Your task to perform on an android device: toggle show notifications on the lock screen Image 0: 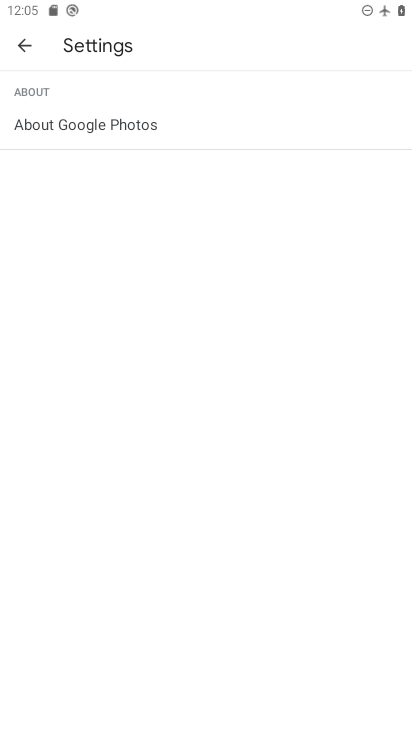
Step 0: press home button
Your task to perform on an android device: toggle show notifications on the lock screen Image 1: 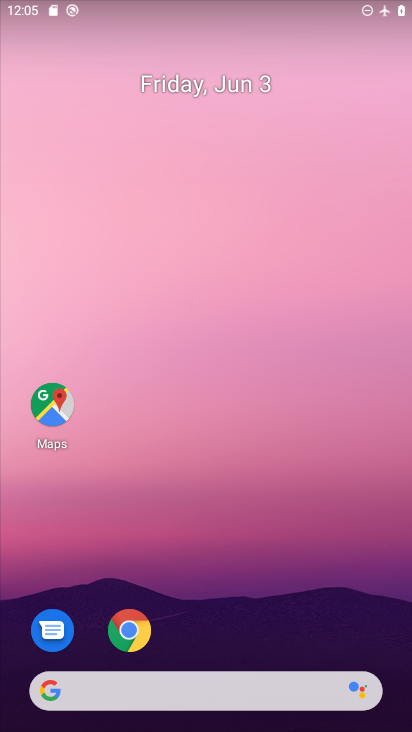
Step 1: drag from (244, 626) to (209, 262)
Your task to perform on an android device: toggle show notifications on the lock screen Image 2: 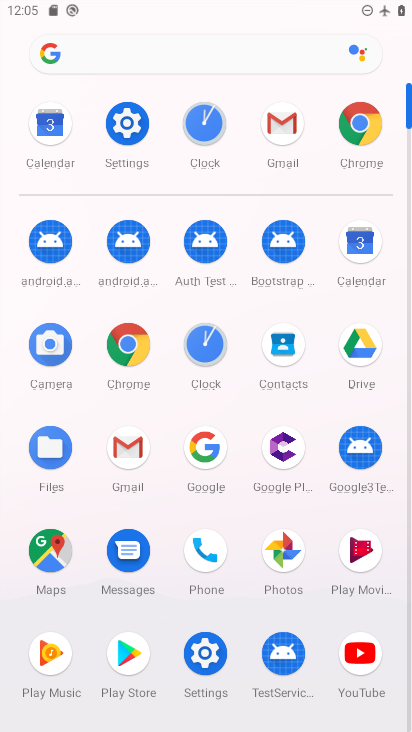
Step 2: click (123, 134)
Your task to perform on an android device: toggle show notifications on the lock screen Image 3: 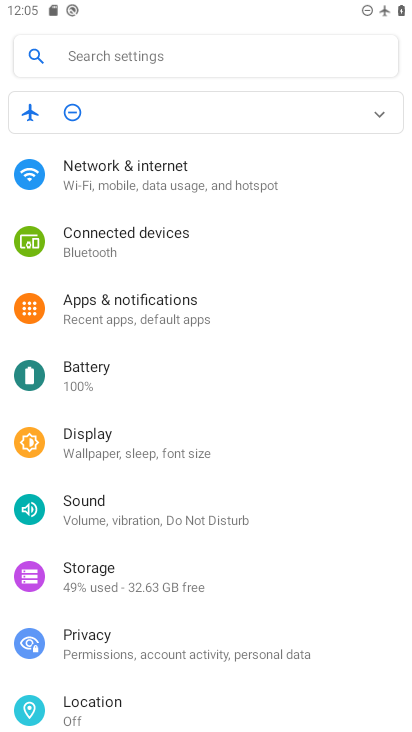
Step 3: click (178, 321)
Your task to perform on an android device: toggle show notifications on the lock screen Image 4: 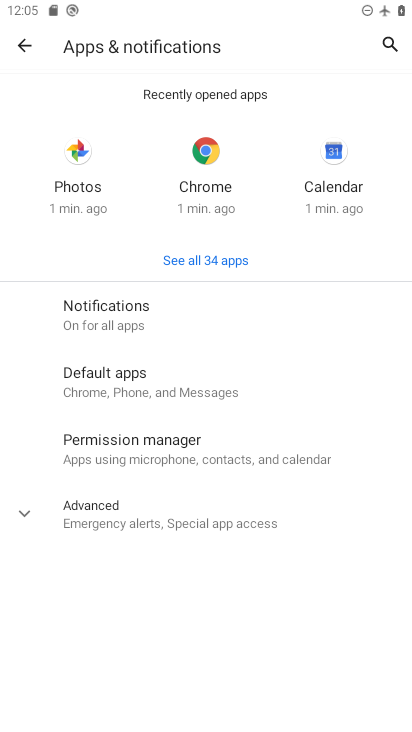
Step 4: click (183, 314)
Your task to perform on an android device: toggle show notifications on the lock screen Image 5: 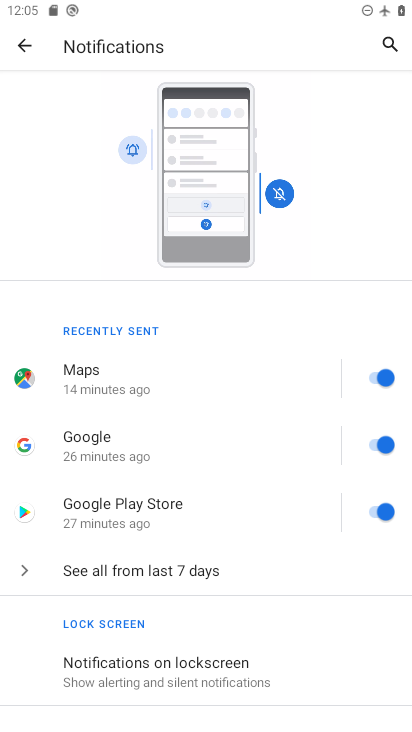
Step 5: drag from (261, 634) to (200, 406)
Your task to perform on an android device: toggle show notifications on the lock screen Image 6: 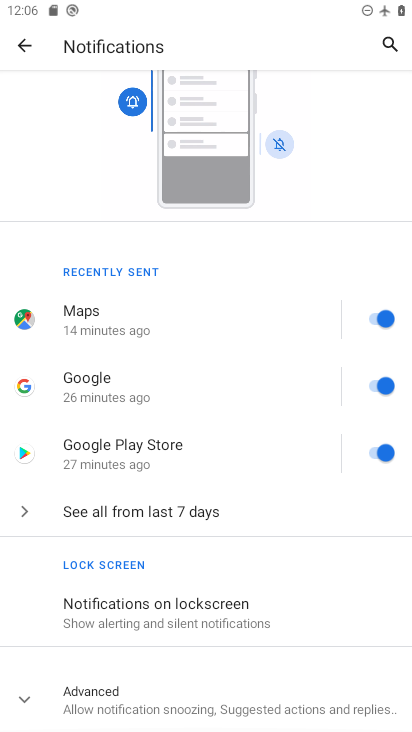
Step 6: click (249, 599)
Your task to perform on an android device: toggle show notifications on the lock screen Image 7: 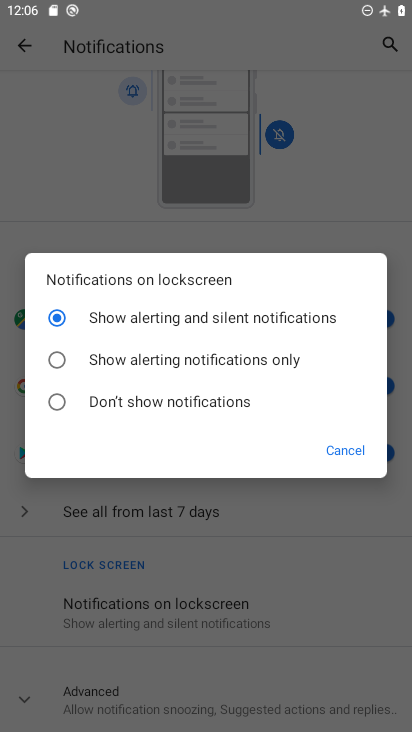
Step 7: click (164, 366)
Your task to perform on an android device: toggle show notifications on the lock screen Image 8: 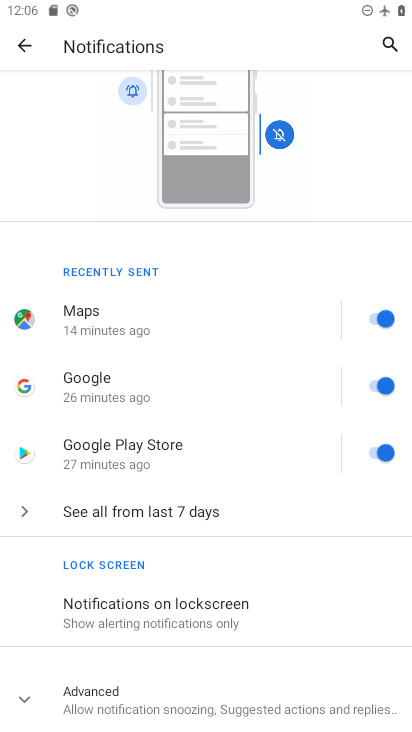
Step 8: task complete